Your task to perform on an android device: Open Maps and search for coffee Image 0: 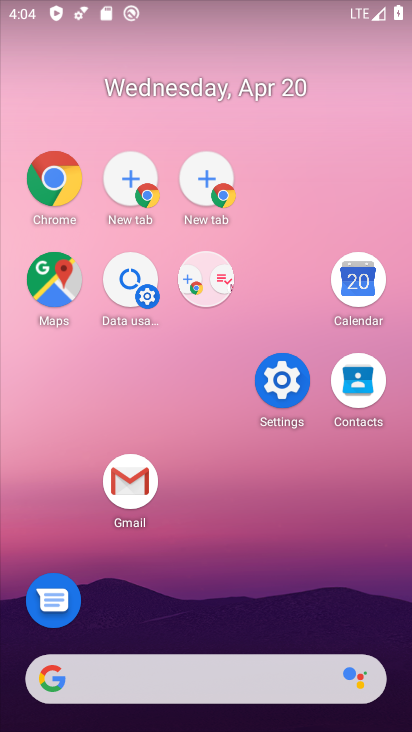
Step 0: click (133, 147)
Your task to perform on an android device: Open Maps and search for coffee Image 1: 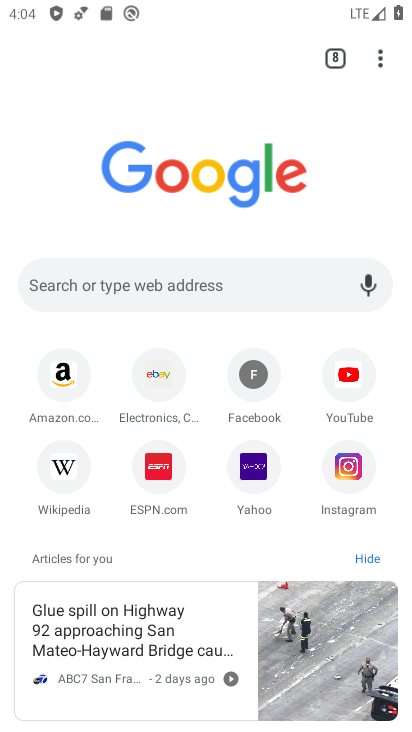
Step 1: press home button
Your task to perform on an android device: Open Maps and search for coffee Image 2: 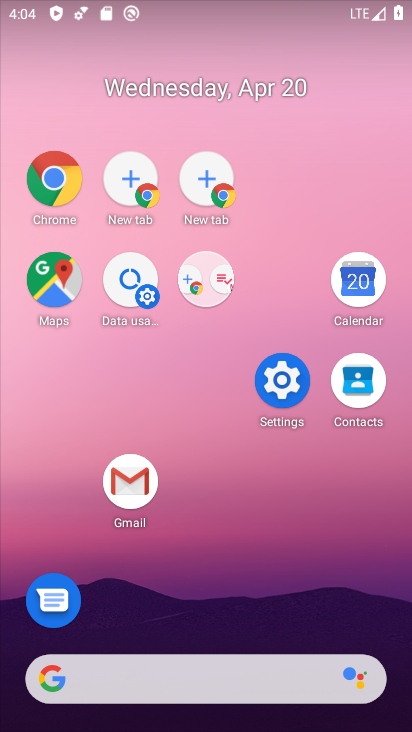
Step 2: click (60, 270)
Your task to perform on an android device: Open Maps and search for coffee Image 3: 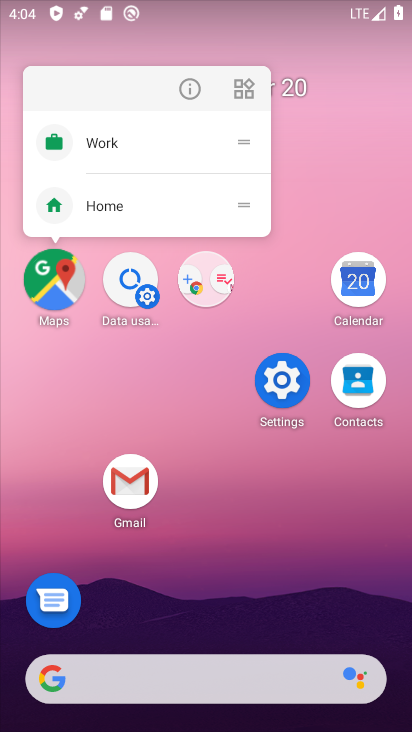
Step 3: click (59, 271)
Your task to perform on an android device: Open Maps and search for coffee Image 4: 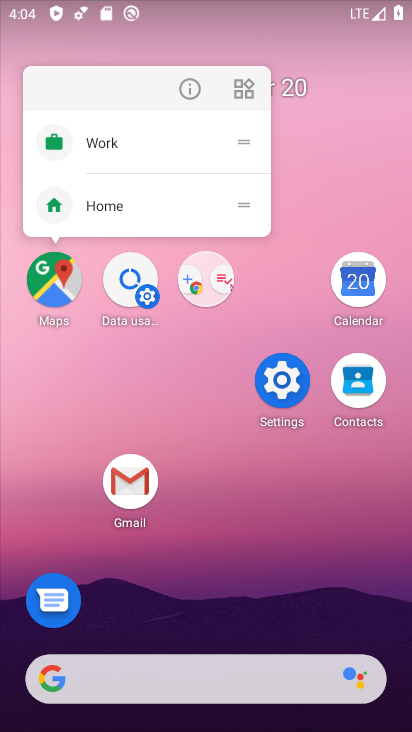
Step 4: click (53, 276)
Your task to perform on an android device: Open Maps and search for coffee Image 5: 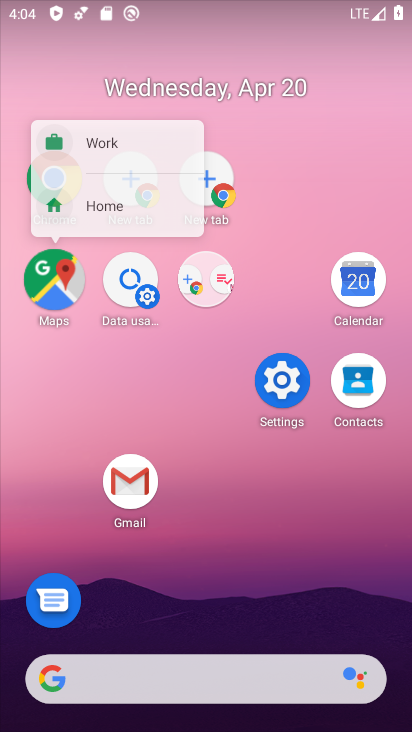
Step 5: click (54, 276)
Your task to perform on an android device: Open Maps and search for coffee Image 6: 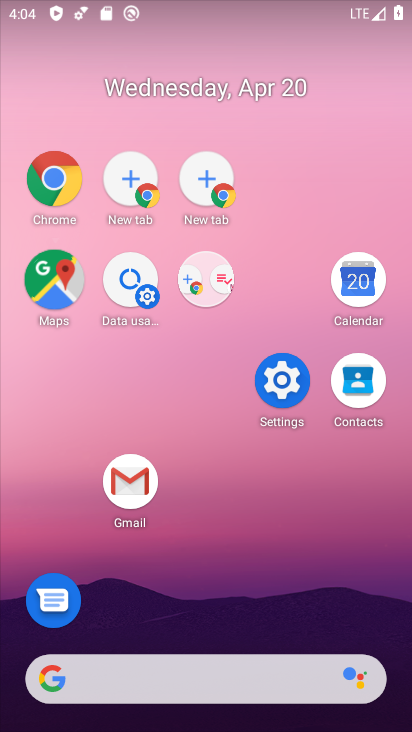
Step 6: click (54, 276)
Your task to perform on an android device: Open Maps and search for coffee Image 7: 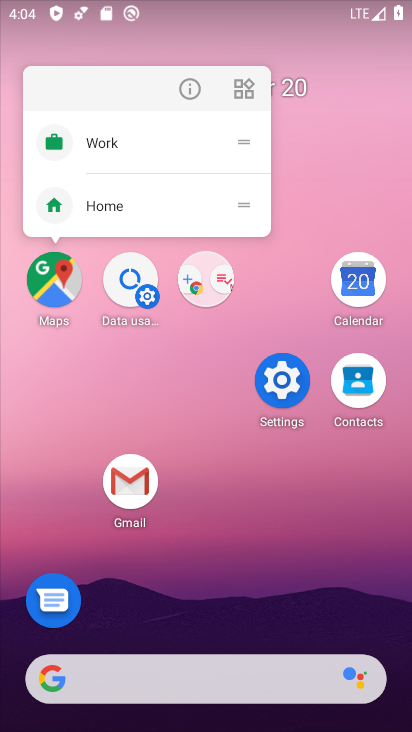
Step 7: click (53, 276)
Your task to perform on an android device: Open Maps and search for coffee Image 8: 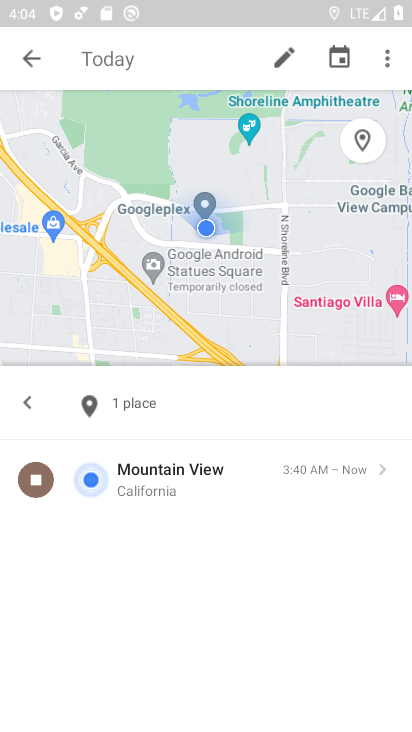
Step 8: click (82, 54)
Your task to perform on an android device: Open Maps and search for coffee Image 9: 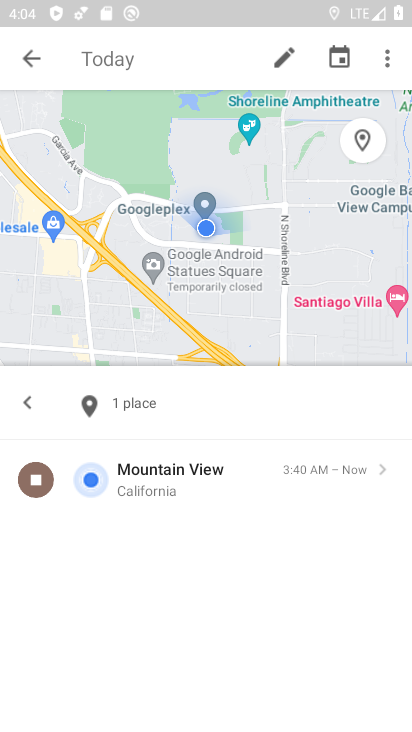
Step 9: click (24, 56)
Your task to perform on an android device: Open Maps and search for coffee Image 10: 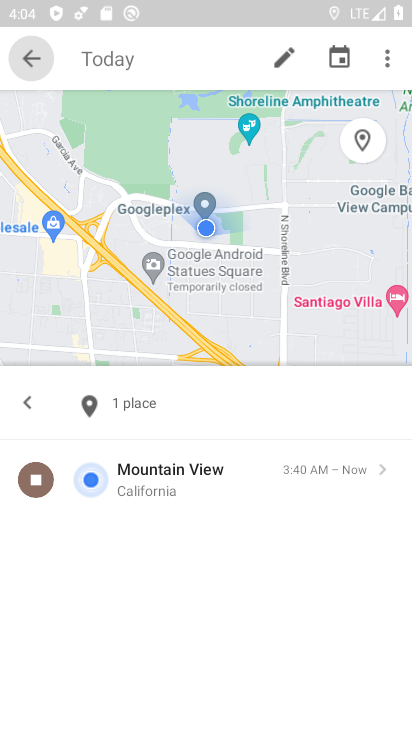
Step 10: click (24, 56)
Your task to perform on an android device: Open Maps and search for coffee Image 11: 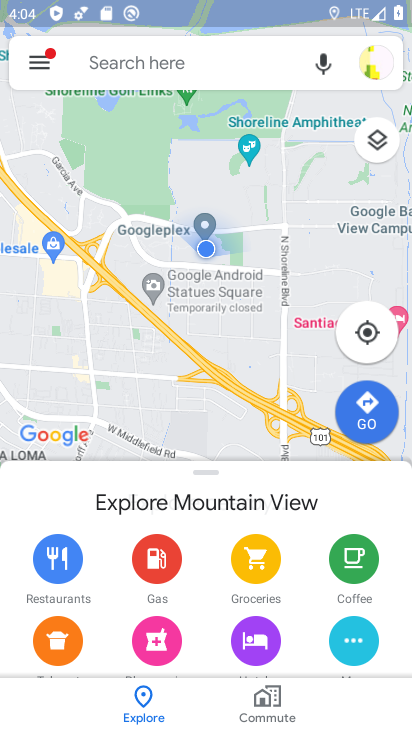
Step 11: click (101, 53)
Your task to perform on an android device: Open Maps and search for coffee Image 12: 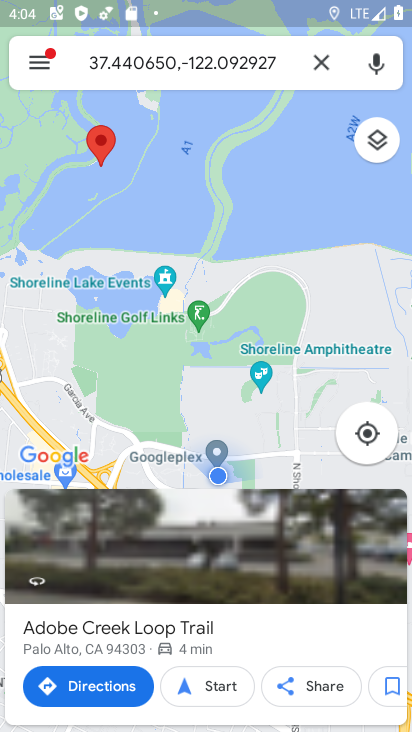
Step 12: click (309, 54)
Your task to perform on an android device: Open Maps and search for coffee Image 13: 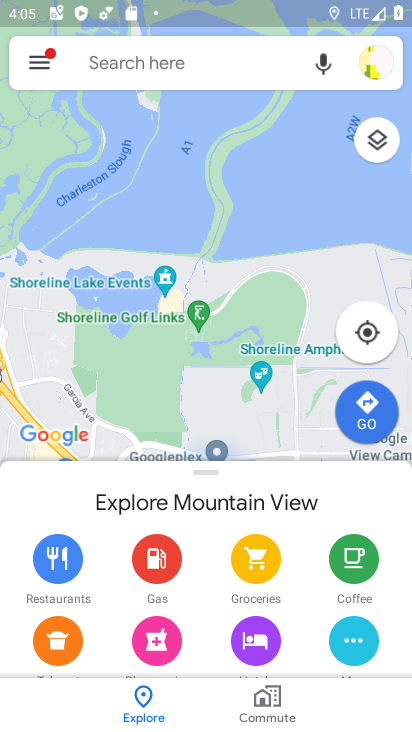
Step 13: click (135, 64)
Your task to perform on an android device: Open Maps and search for coffee Image 14: 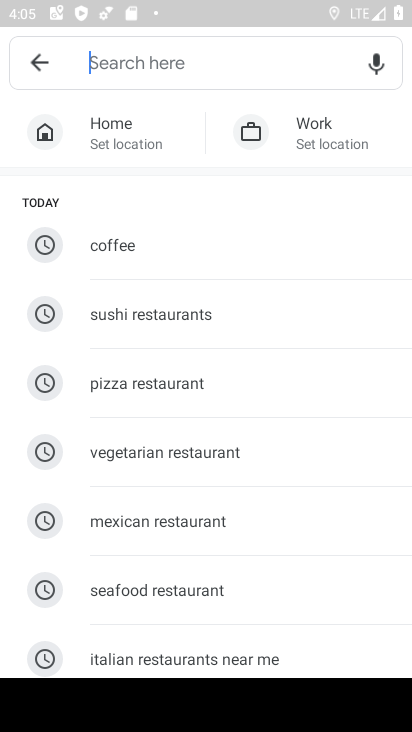
Step 14: click (124, 251)
Your task to perform on an android device: Open Maps and search for coffee Image 15: 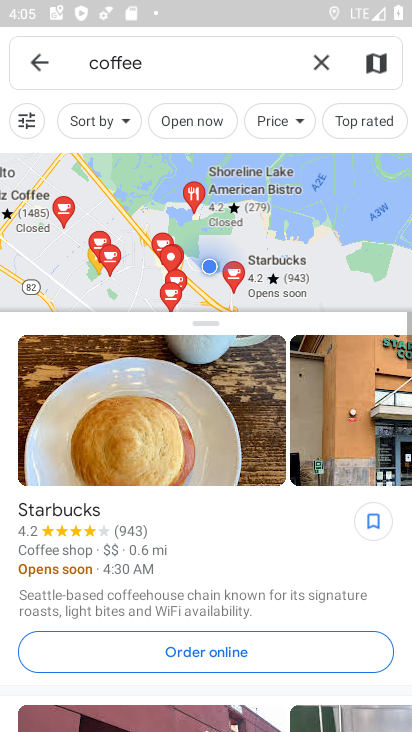
Step 15: task complete